Your task to perform on an android device: Clear the shopping cart on newegg. Add razer deathadder to the cart on newegg, then select checkout. Image 0: 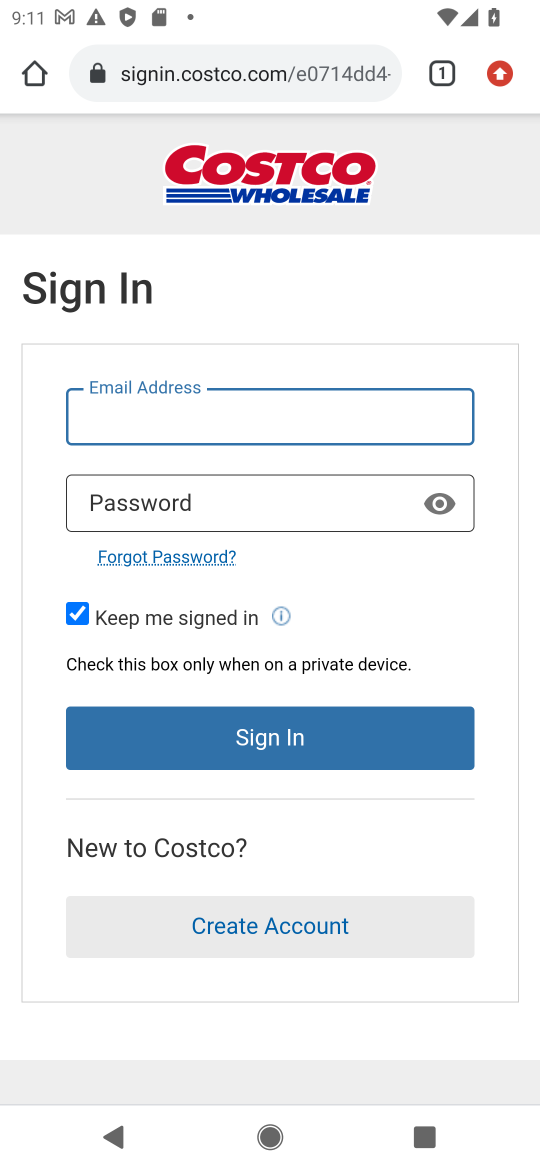
Step 0: click (198, 67)
Your task to perform on an android device: Clear the shopping cart on newegg. Add razer deathadder to the cart on newegg, then select checkout. Image 1: 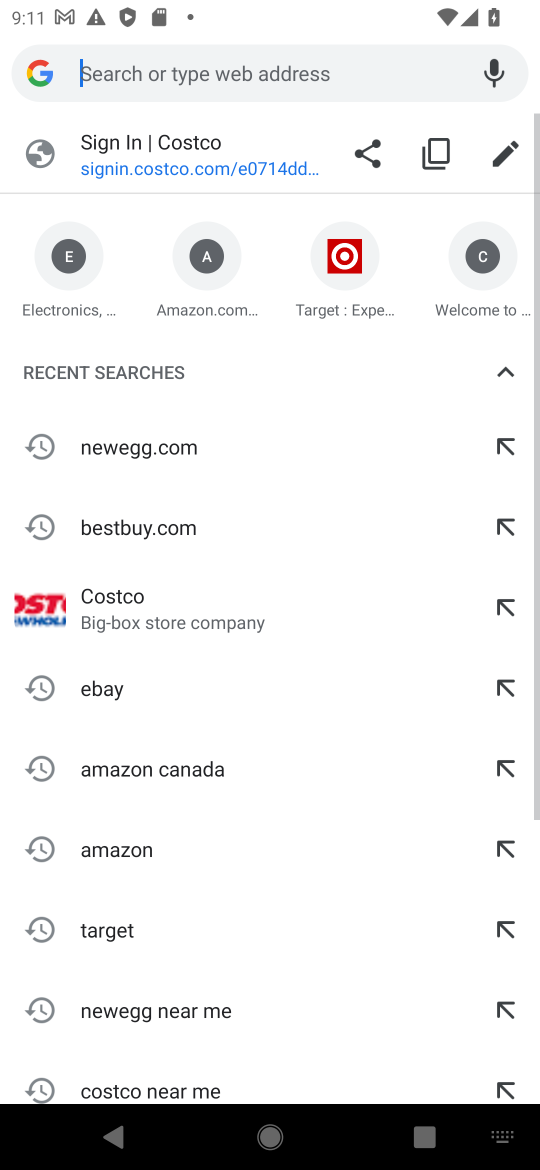
Step 1: click (124, 445)
Your task to perform on an android device: Clear the shopping cart on newegg. Add razer deathadder to the cart on newegg, then select checkout. Image 2: 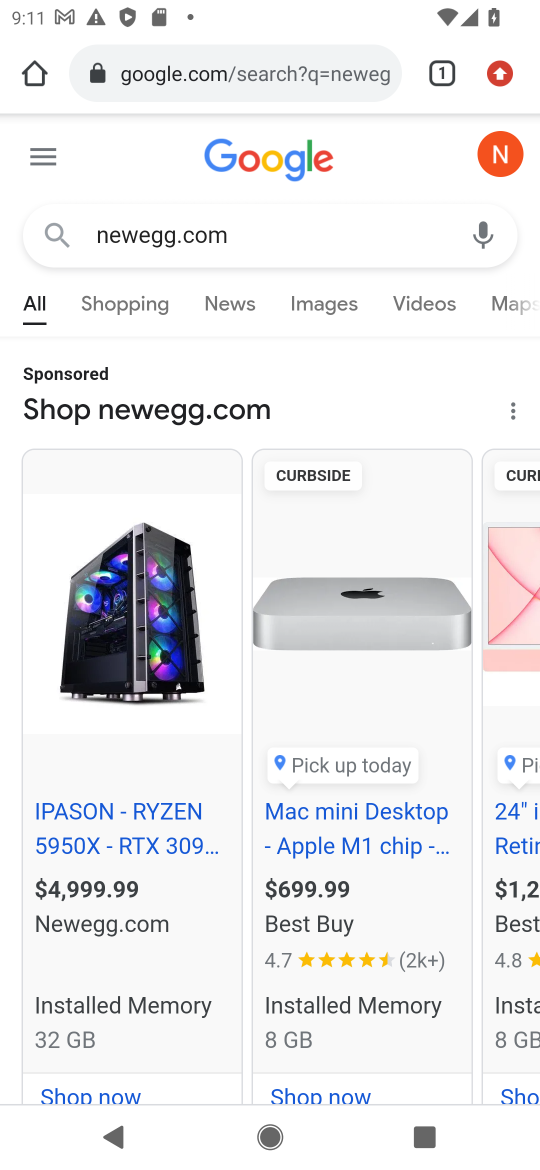
Step 2: drag from (249, 789) to (259, 207)
Your task to perform on an android device: Clear the shopping cart on newegg. Add razer deathadder to the cart on newegg, then select checkout. Image 3: 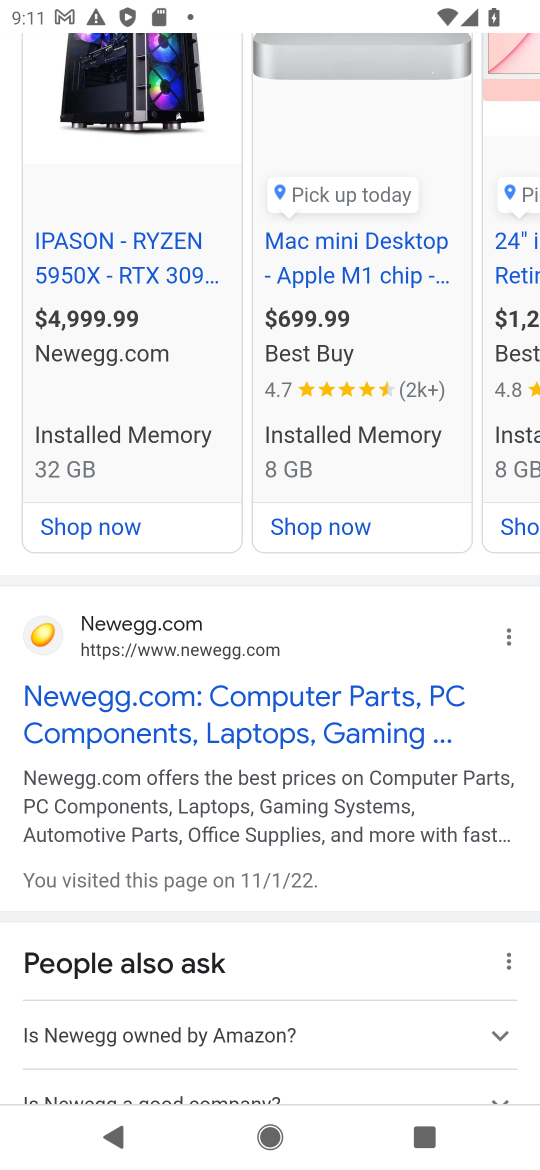
Step 3: drag from (225, 721) to (241, 278)
Your task to perform on an android device: Clear the shopping cart on newegg. Add razer deathadder to the cart on newegg, then select checkout. Image 4: 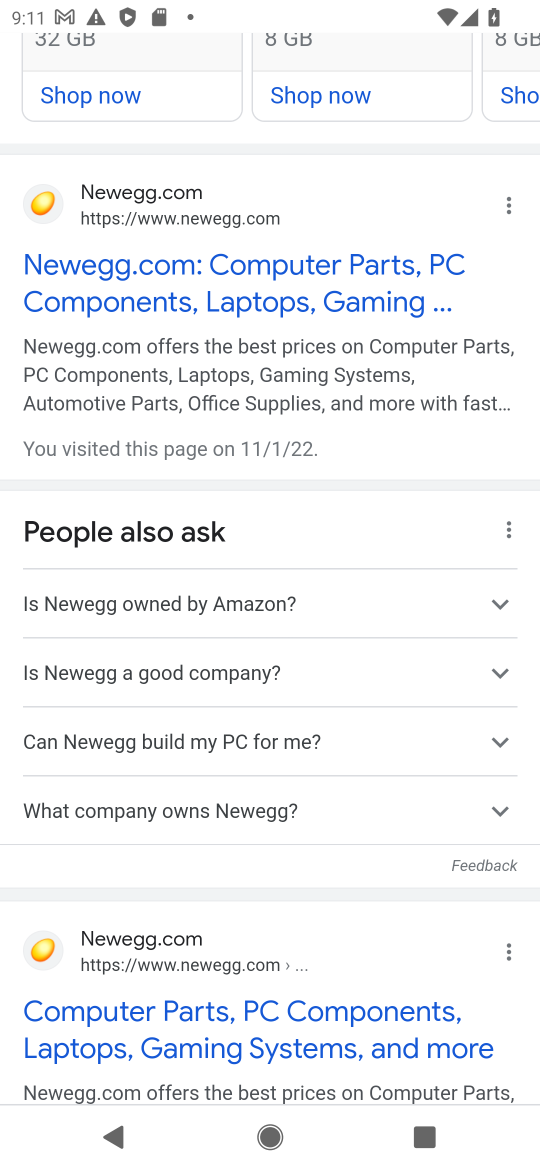
Step 4: click (144, 968)
Your task to perform on an android device: Clear the shopping cart on newegg. Add razer deathadder to the cart on newegg, then select checkout. Image 5: 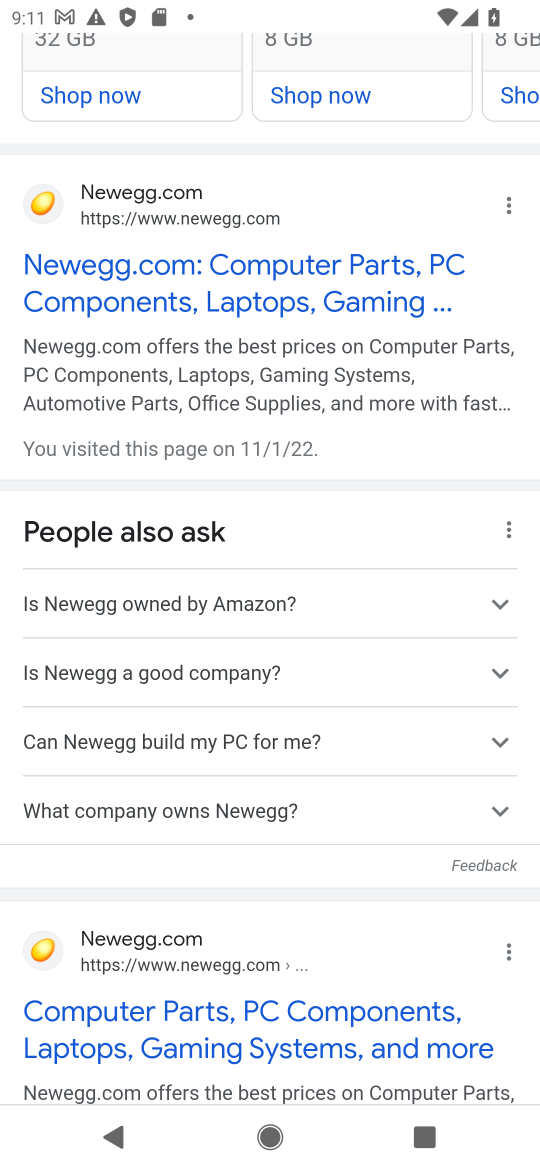
Step 5: click (168, 1019)
Your task to perform on an android device: Clear the shopping cart on newegg. Add razer deathadder to the cart on newegg, then select checkout. Image 6: 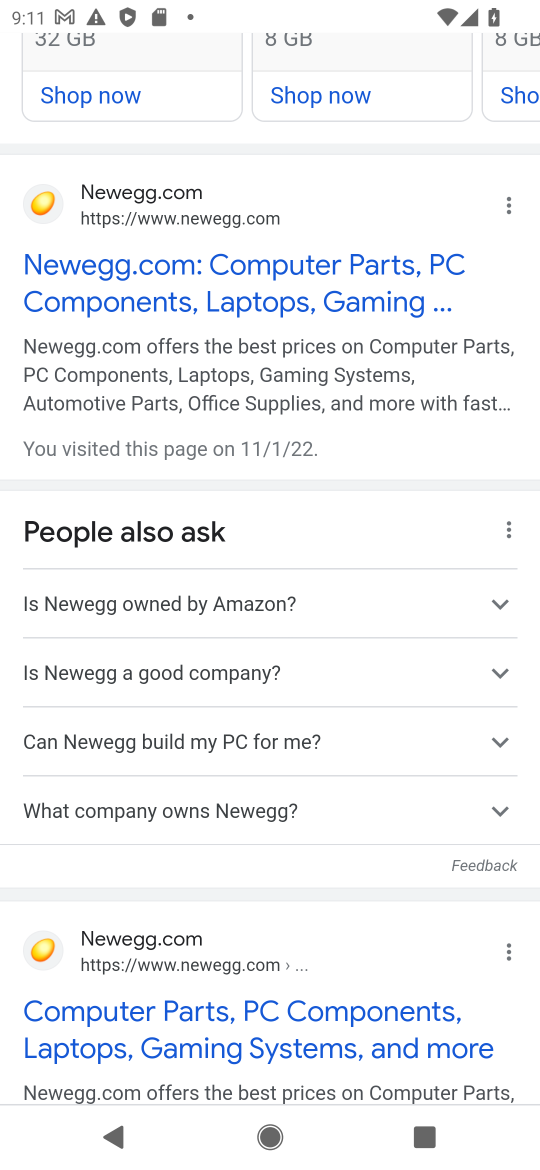
Step 6: drag from (186, 1000) to (197, 687)
Your task to perform on an android device: Clear the shopping cart on newegg. Add razer deathadder to the cart on newegg, then select checkout. Image 7: 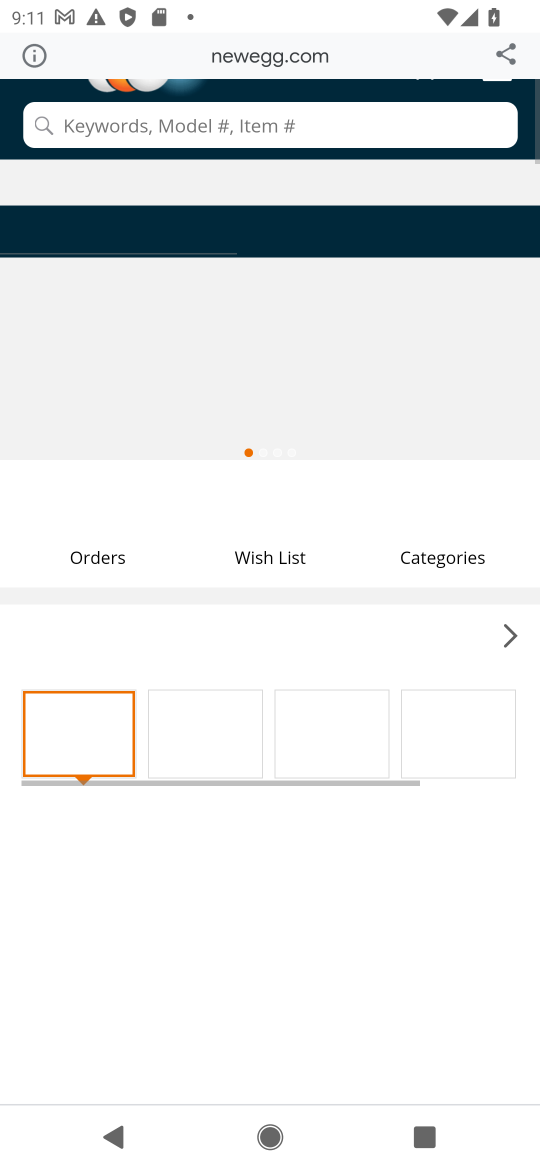
Step 7: click (158, 699)
Your task to perform on an android device: Clear the shopping cart on newegg. Add razer deathadder to the cart on newegg, then select checkout. Image 8: 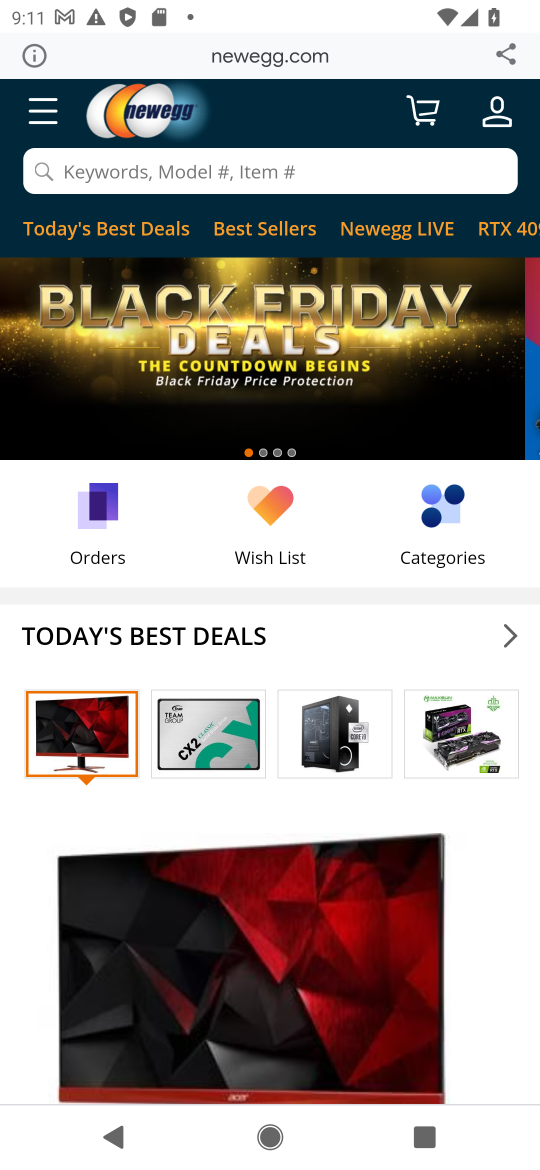
Step 8: click (424, 118)
Your task to perform on an android device: Clear the shopping cart on newegg. Add razer deathadder to the cart on newegg, then select checkout. Image 9: 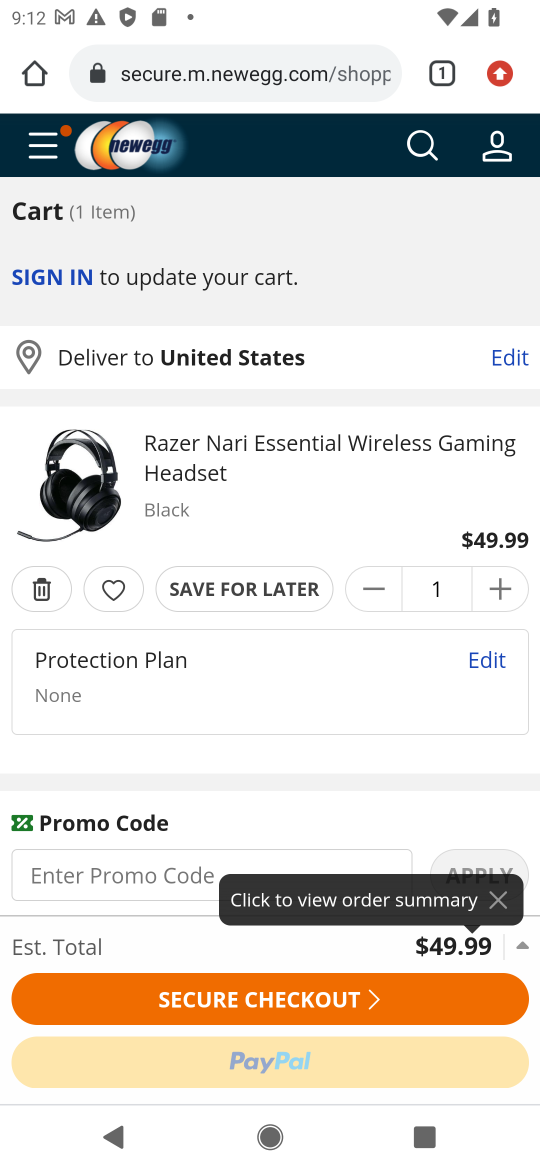
Step 9: click (40, 596)
Your task to perform on an android device: Clear the shopping cart on newegg. Add razer deathadder to the cart on newegg, then select checkout. Image 10: 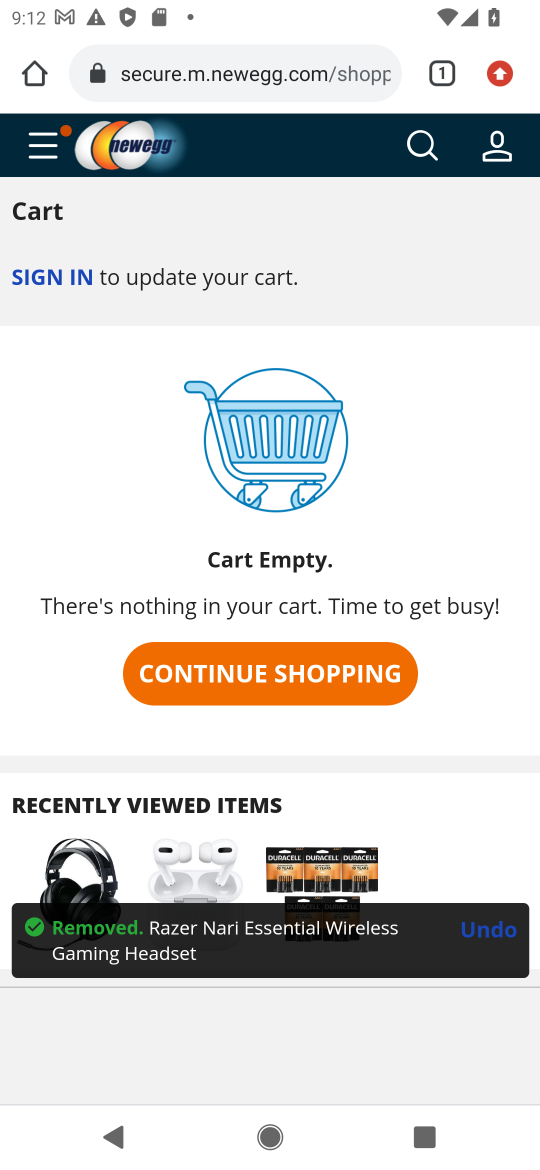
Step 10: click (246, 685)
Your task to perform on an android device: Clear the shopping cart on newegg. Add razer deathadder to the cart on newegg, then select checkout. Image 11: 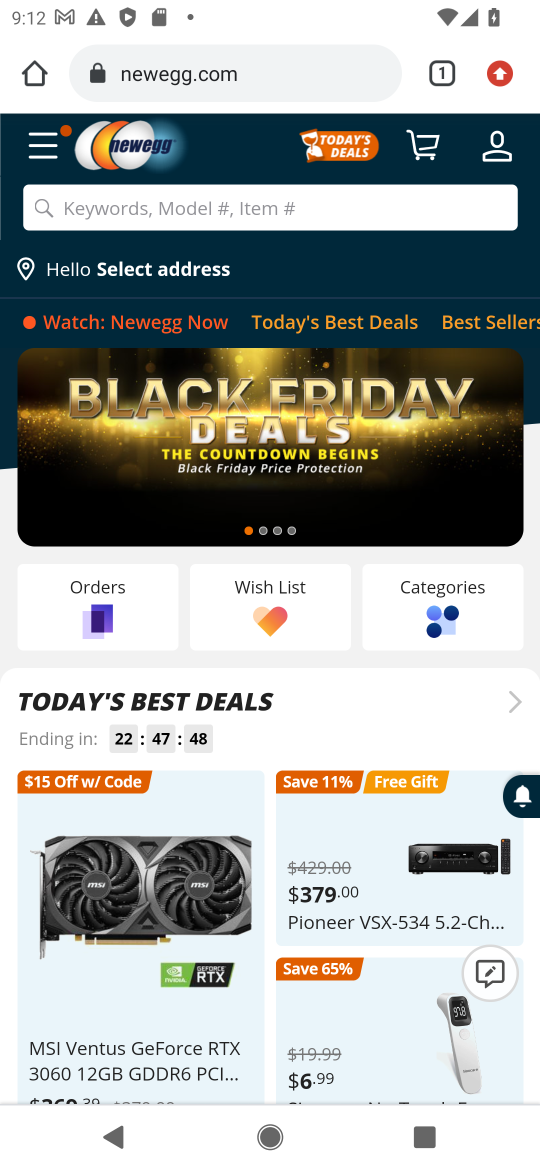
Step 11: click (276, 199)
Your task to perform on an android device: Clear the shopping cart on newegg. Add razer deathadder to the cart on newegg, then select checkout. Image 12: 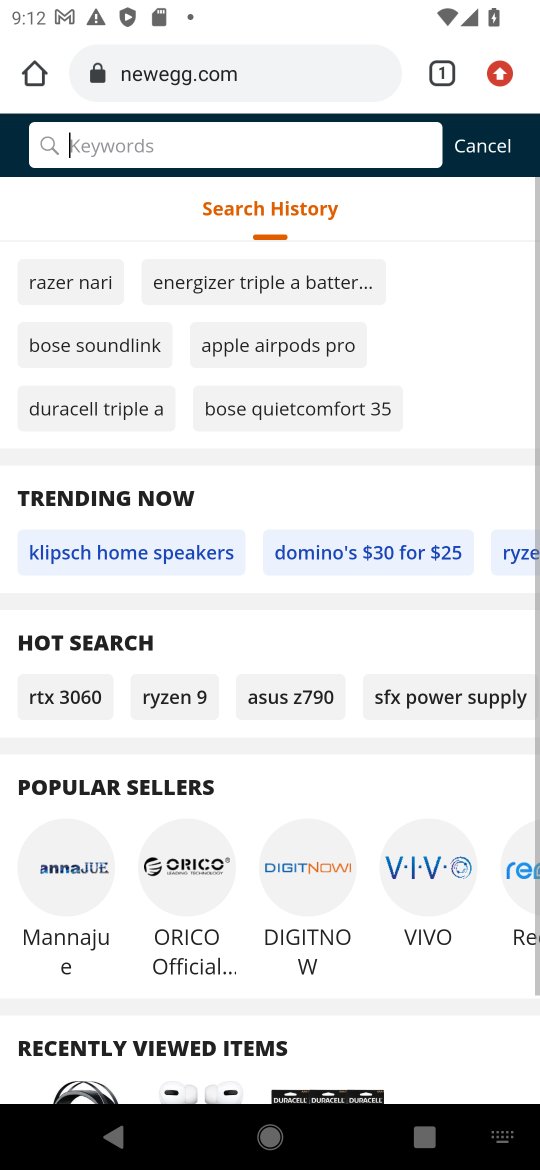
Step 12: type "razer deathadder"
Your task to perform on an android device: Clear the shopping cart on newegg. Add razer deathadder to the cart on newegg, then select checkout. Image 13: 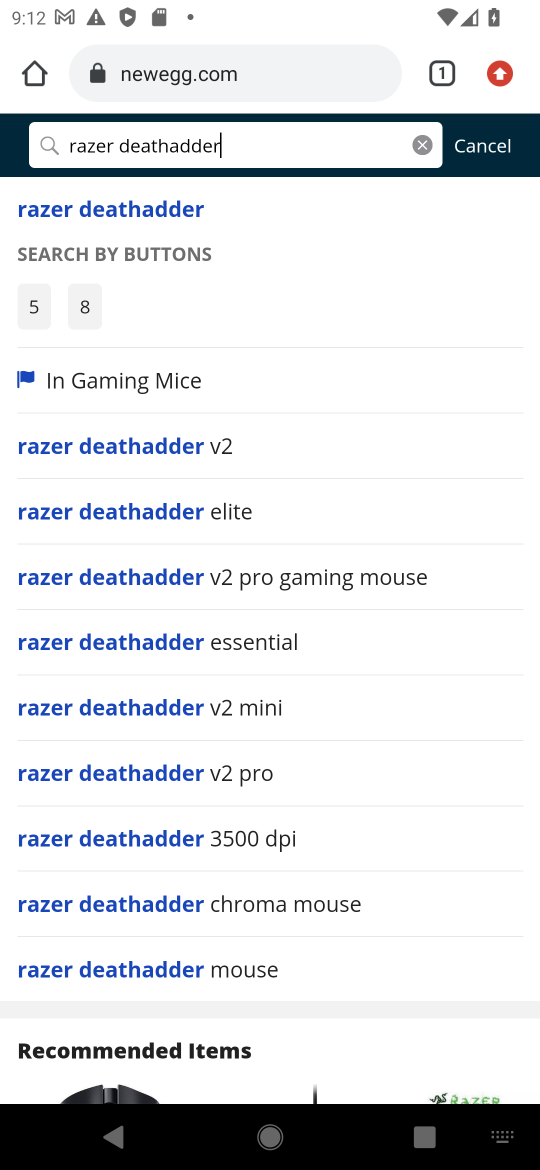
Step 13: click (108, 209)
Your task to perform on an android device: Clear the shopping cart on newegg. Add razer deathadder to the cart on newegg, then select checkout. Image 14: 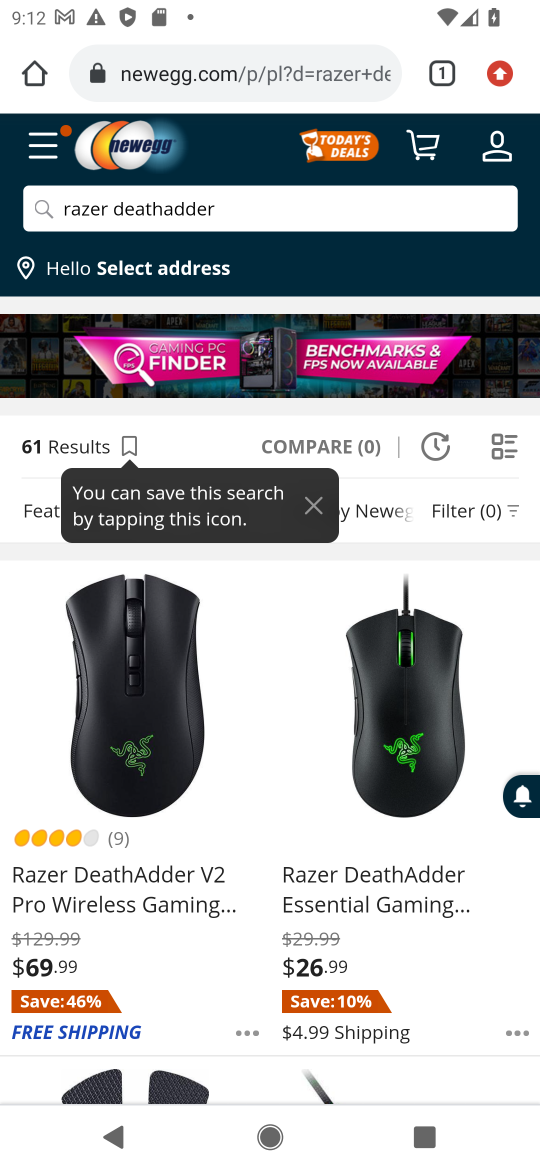
Step 14: drag from (256, 895) to (296, 631)
Your task to perform on an android device: Clear the shopping cart on newegg. Add razer deathadder to the cart on newegg, then select checkout. Image 15: 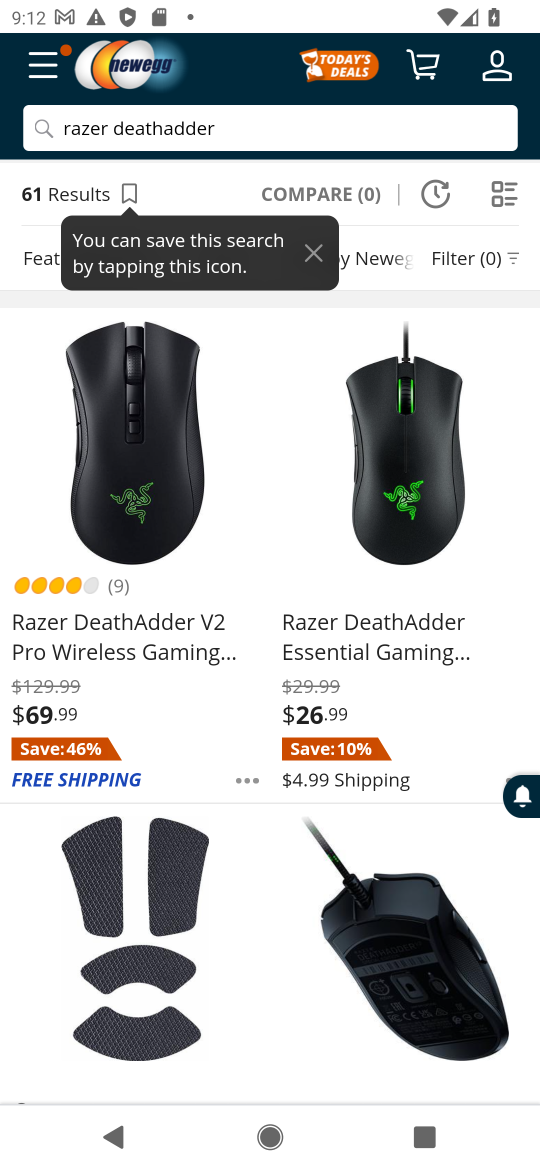
Step 15: click (126, 639)
Your task to perform on an android device: Clear the shopping cart on newegg. Add razer deathadder to the cart on newegg, then select checkout. Image 16: 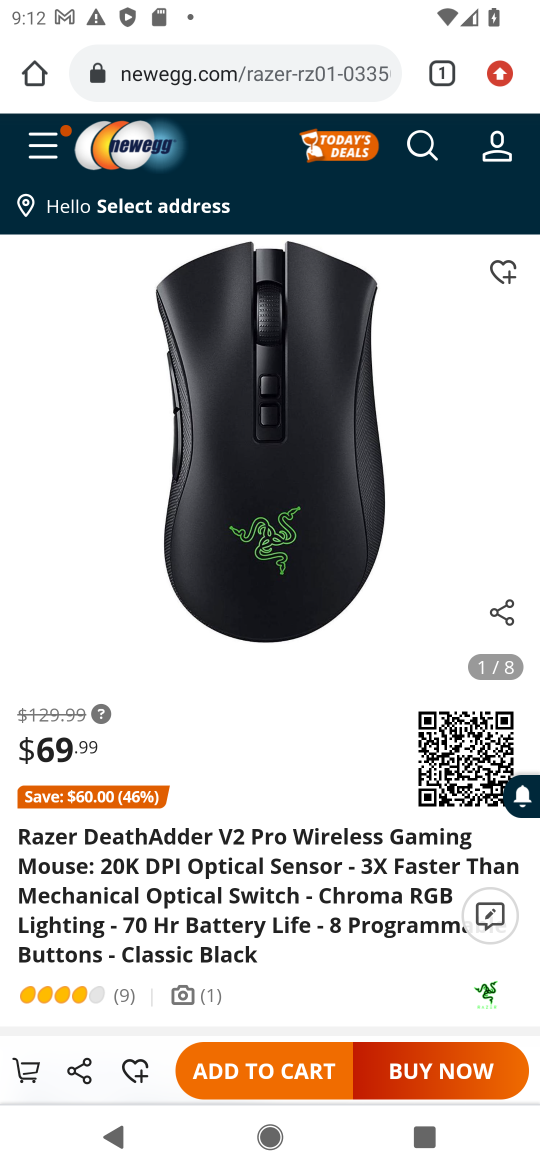
Step 16: click (277, 1081)
Your task to perform on an android device: Clear the shopping cart on newegg. Add razer deathadder to the cart on newegg, then select checkout. Image 17: 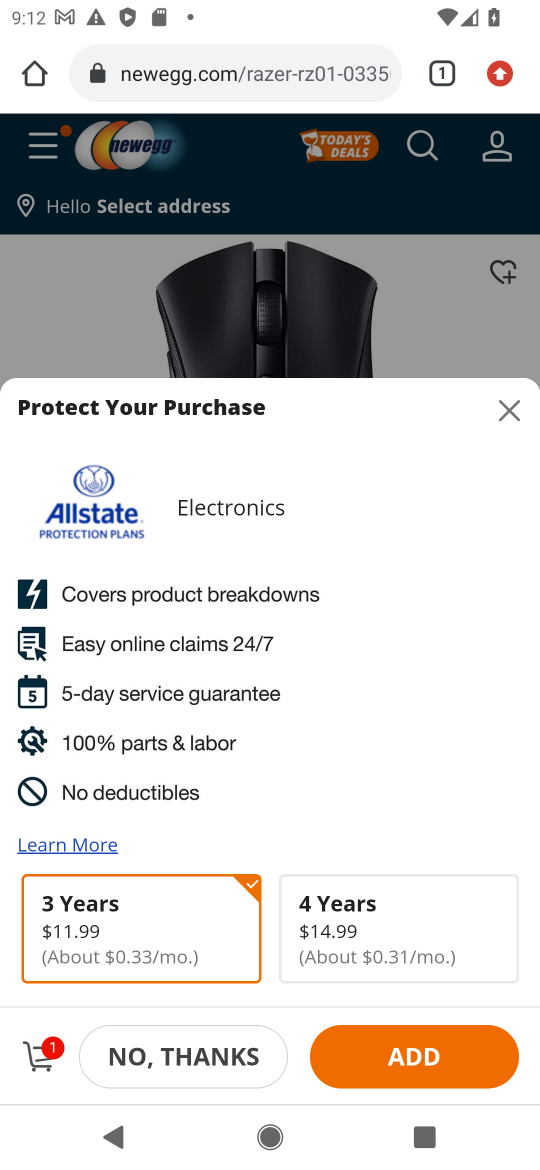
Step 17: click (44, 1048)
Your task to perform on an android device: Clear the shopping cart on newegg. Add razer deathadder to the cart on newegg, then select checkout. Image 18: 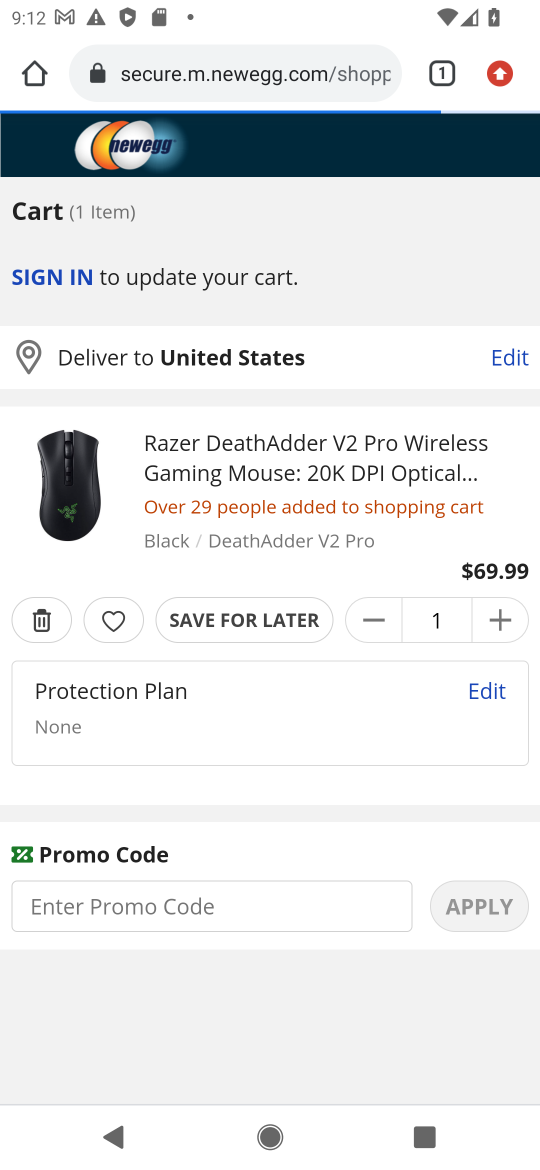
Step 18: click (337, 973)
Your task to perform on an android device: Clear the shopping cart on newegg. Add razer deathadder to the cart on newegg, then select checkout. Image 19: 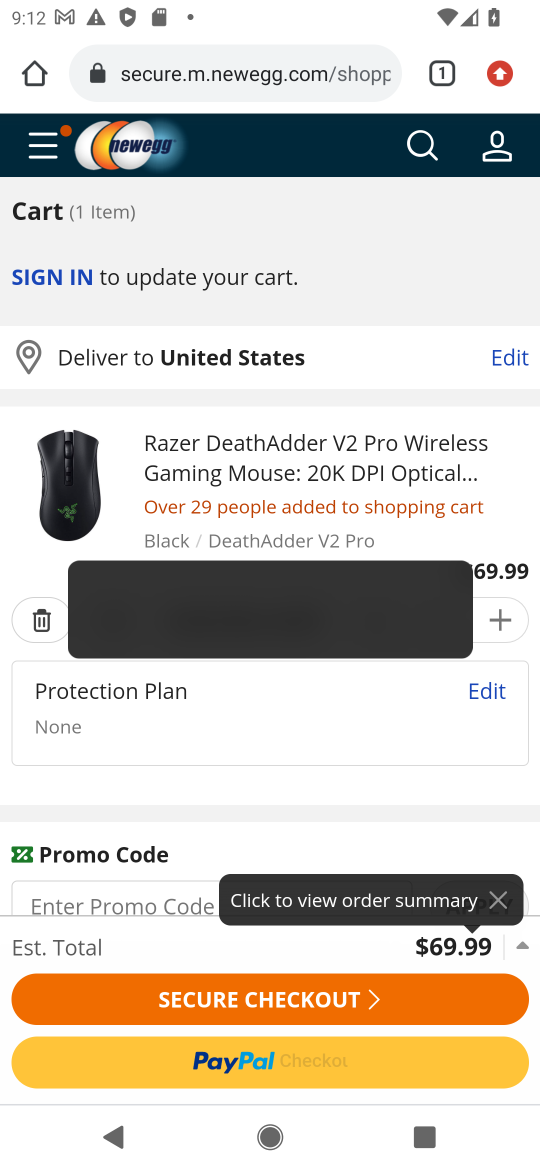
Step 19: click (321, 1011)
Your task to perform on an android device: Clear the shopping cart on newegg. Add razer deathadder to the cart on newegg, then select checkout. Image 20: 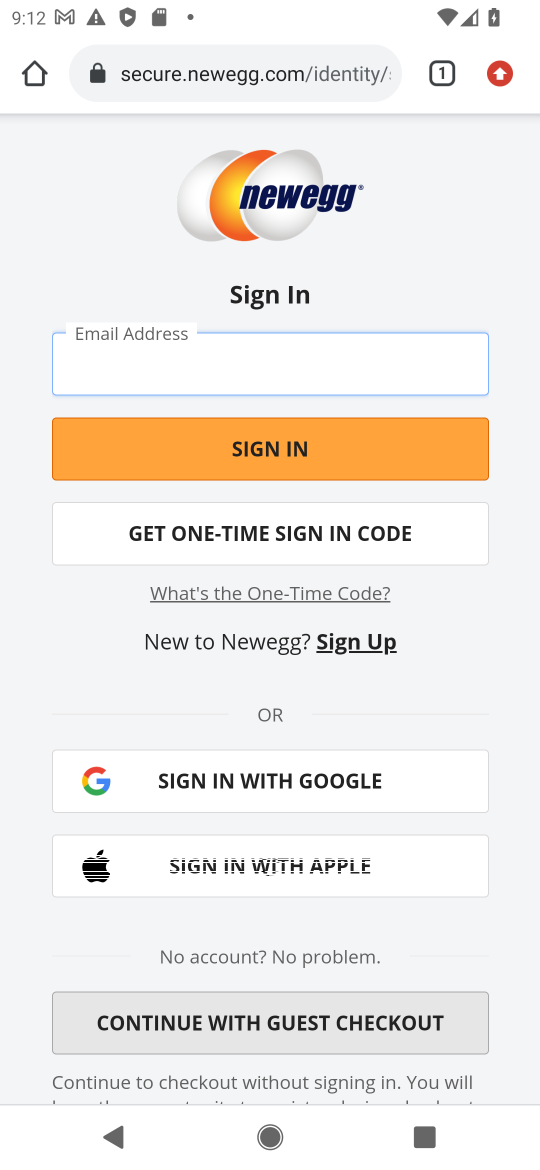
Step 20: task complete